Your task to perform on an android device: turn on wifi Image 0: 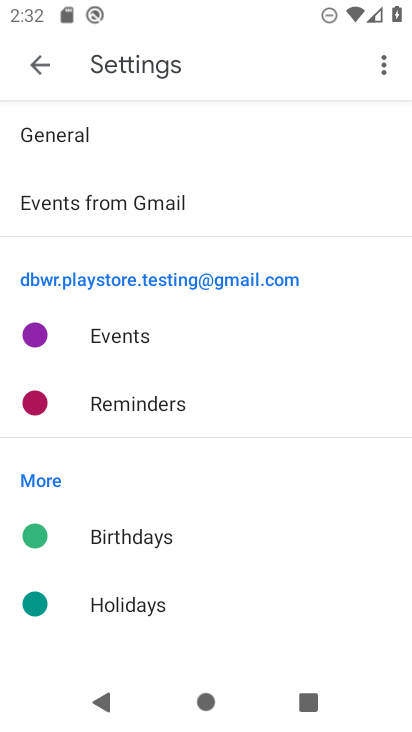
Step 0: press home button
Your task to perform on an android device: turn on wifi Image 1: 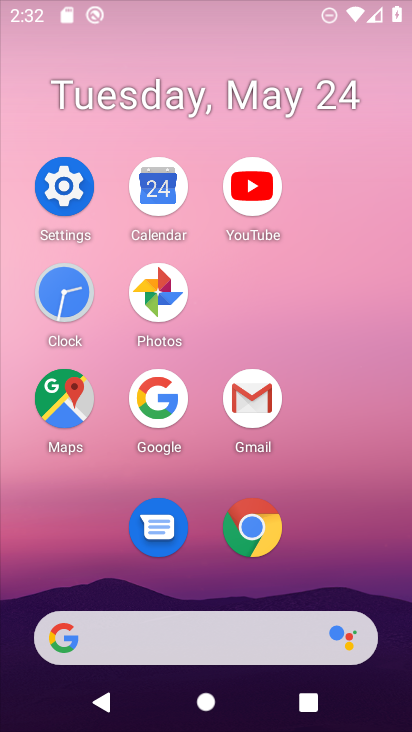
Step 1: click (79, 173)
Your task to perform on an android device: turn on wifi Image 2: 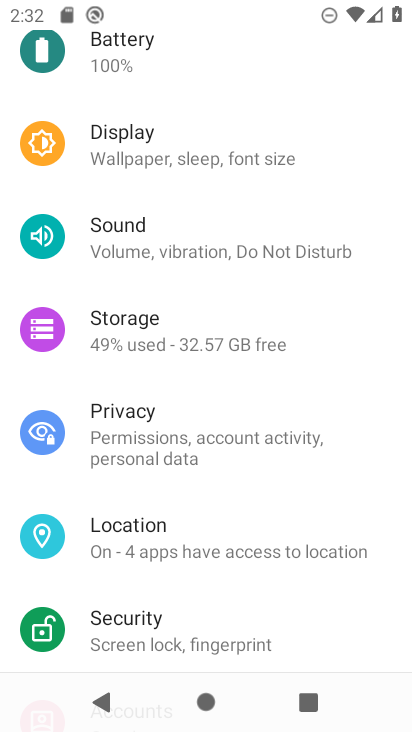
Step 2: drag from (290, 179) to (334, 426)
Your task to perform on an android device: turn on wifi Image 3: 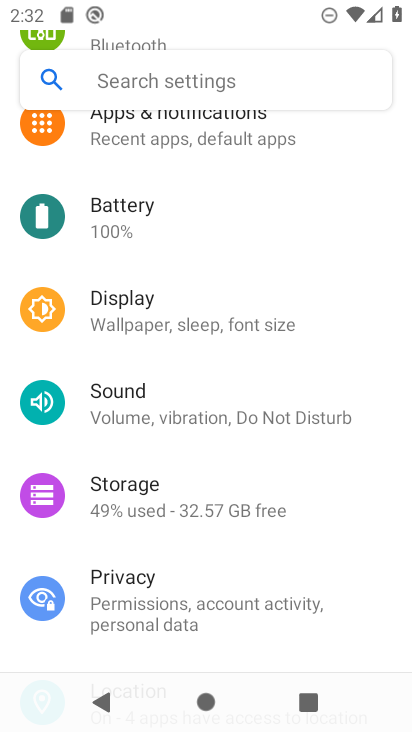
Step 3: drag from (216, 129) to (293, 432)
Your task to perform on an android device: turn on wifi Image 4: 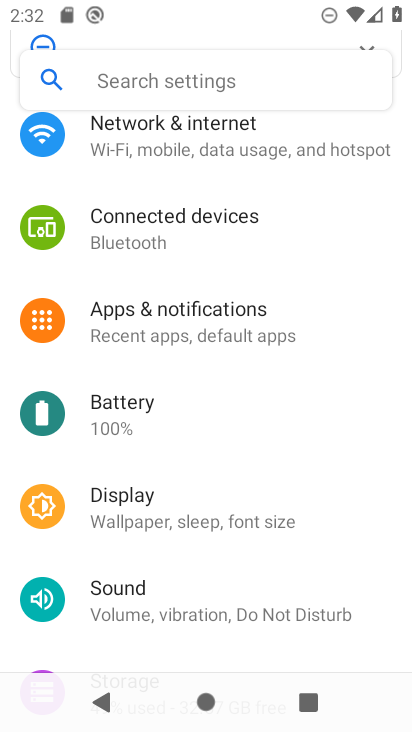
Step 4: click (176, 145)
Your task to perform on an android device: turn on wifi Image 5: 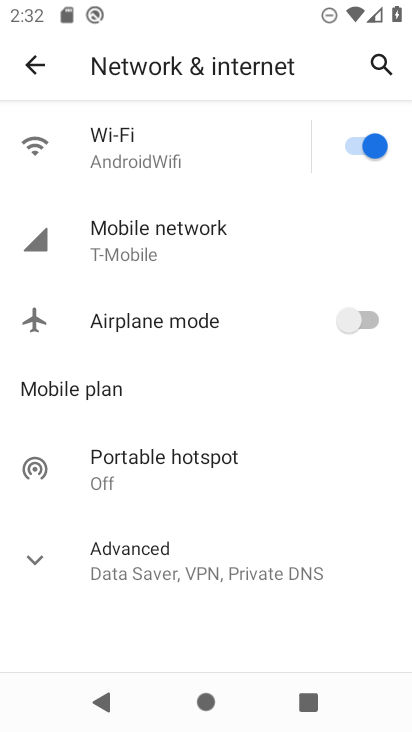
Step 5: task complete